Your task to perform on an android device: turn off improve location accuracy Image 0: 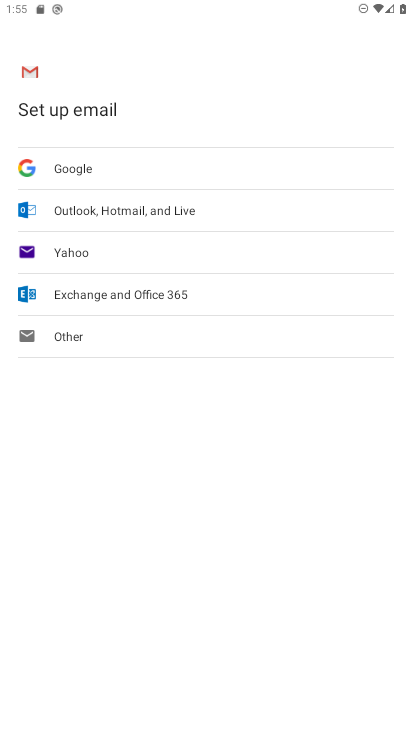
Step 0: press home button
Your task to perform on an android device: turn off improve location accuracy Image 1: 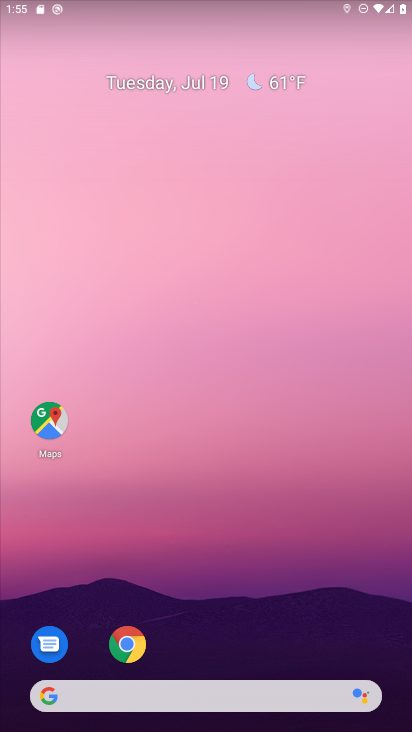
Step 1: drag from (249, 663) to (375, 491)
Your task to perform on an android device: turn off improve location accuracy Image 2: 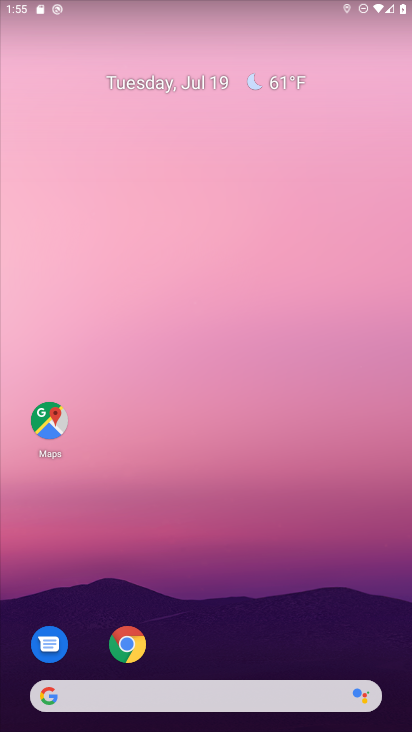
Step 2: drag from (194, 664) to (90, 56)
Your task to perform on an android device: turn off improve location accuracy Image 3: 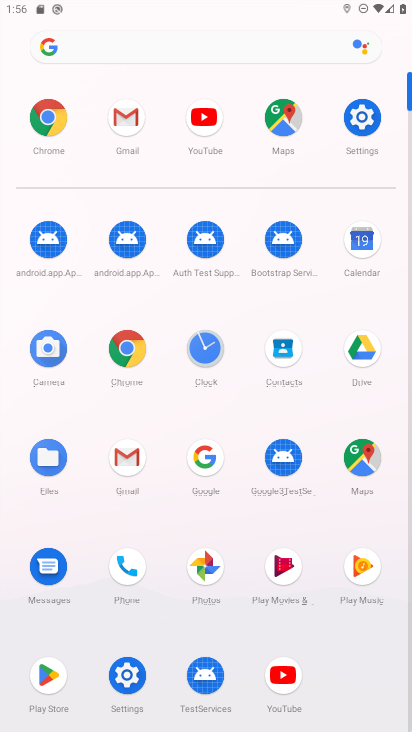
Step 3: click (128, 678)
Your task to perform on an android device: turn off improve location accuracy Image 4: 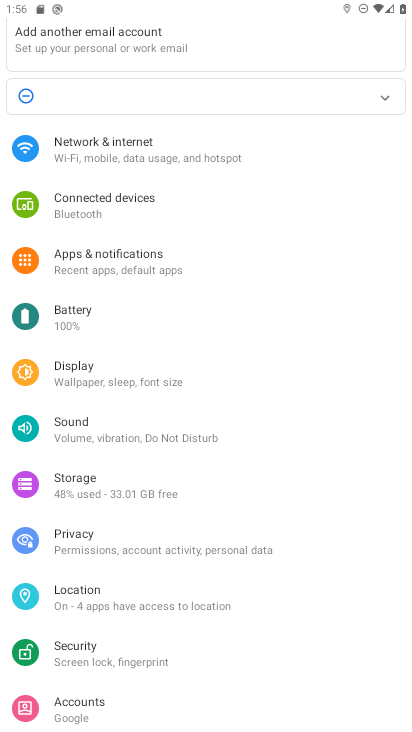
Step 4: click (82, 597)
Your task to perform on an android device: turn off improve location accuracy Image 5: 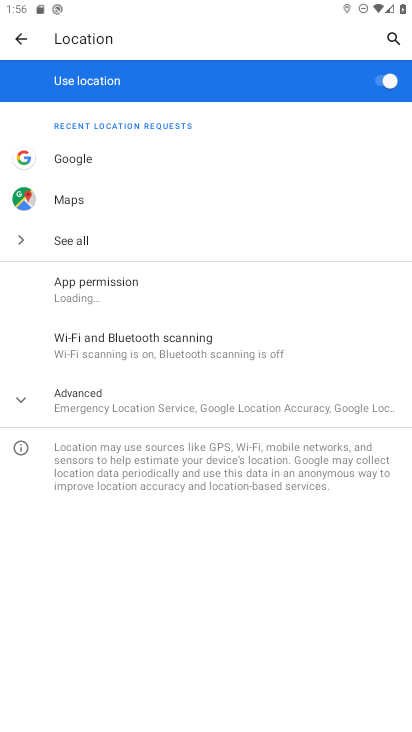
Step 5: click (101, 415)
Your task to perform on an android device: turn off improve location accuracy Image 6: 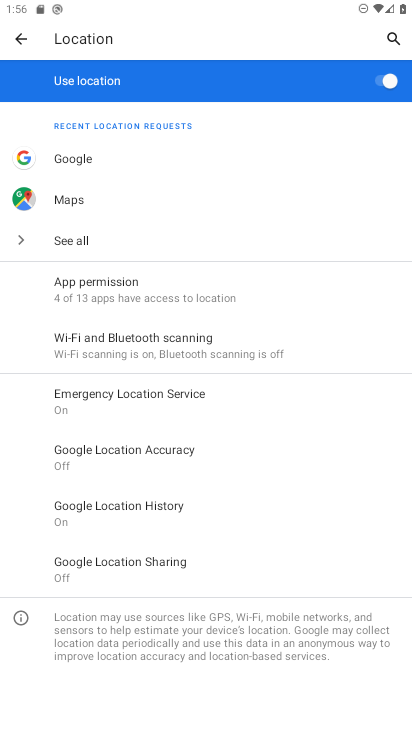
Step 6: click (127, 447)
Your task to perform on an android device: turn off improve location accuracy Image 7: 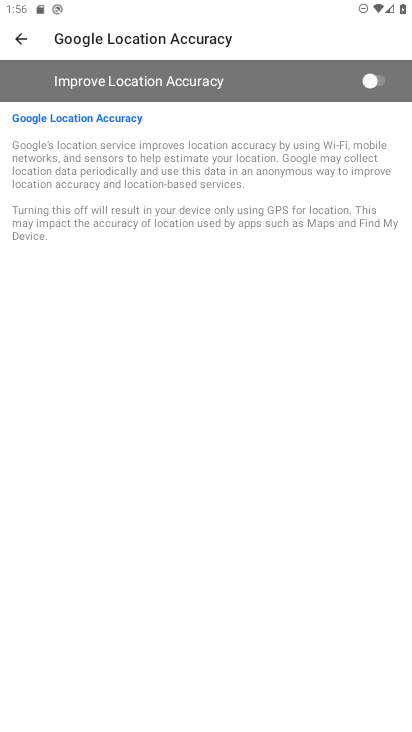
Step 7: task complete